Your task to perform on an android device: find which apps use the phone's location Image 0: 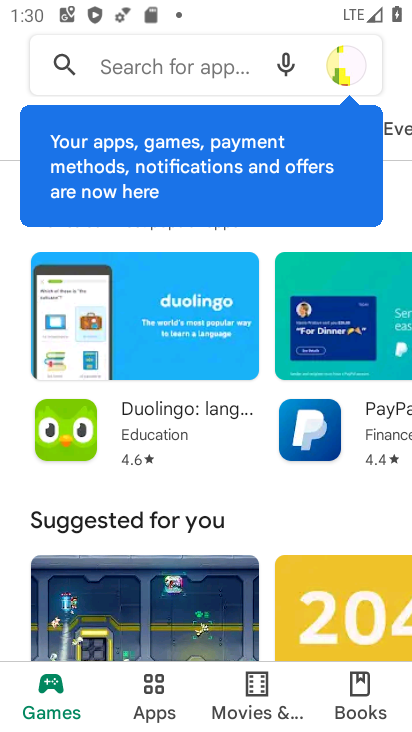
Step 0: press home button
Your task to perform on an android device: find which apps use the phone's location Image 1: 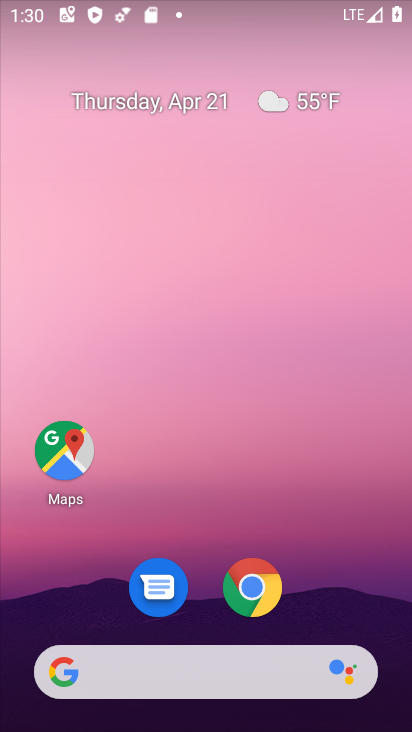
Step 1: drag from (375, 615) to (291, 107)
Your task to perform on an android device: find which apps use the phone's location Image 2: 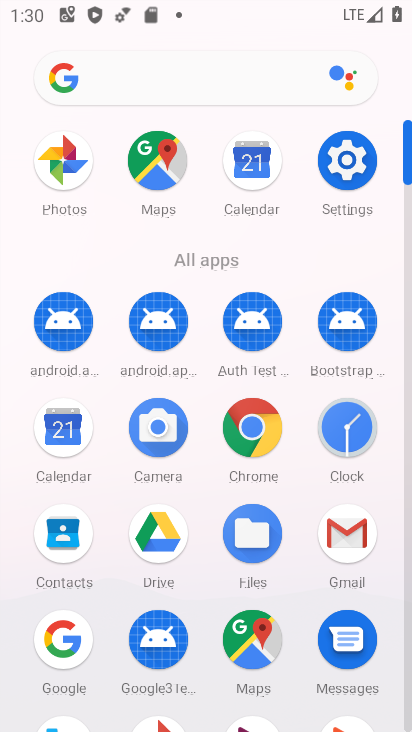
Step 2: click (407, 693)
Your task to perform on an android device: find which apps use the phone's location Image 3: 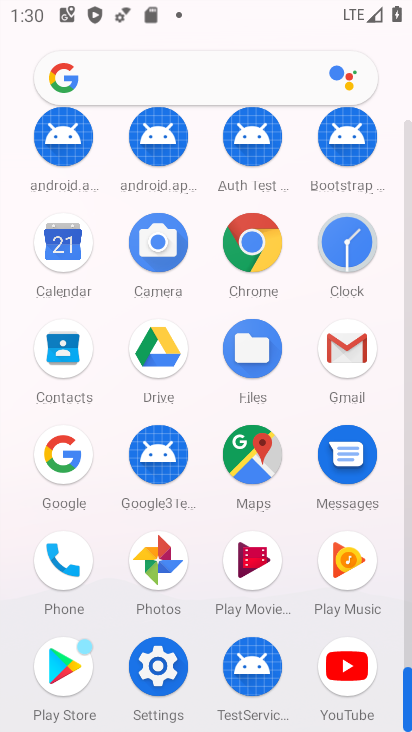
Step 3: click (157, 666)
Your task to perform on an android device: find which apps use the phone's location Image 4: 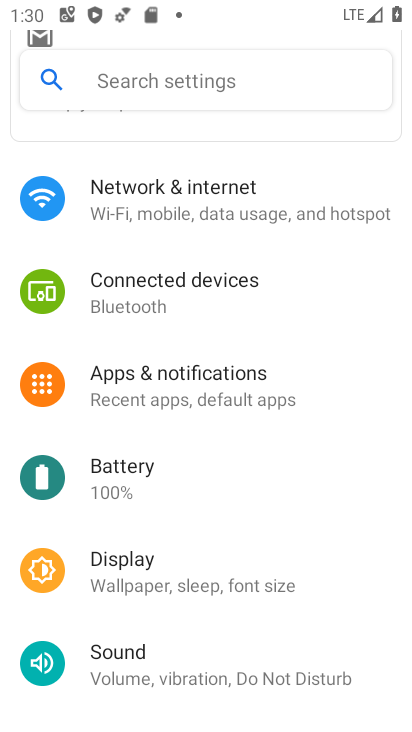
Step 4: drag from (333, 588) to (300, 349)
Your task to perform on an android device: find which apps use the phone's location Image 5: 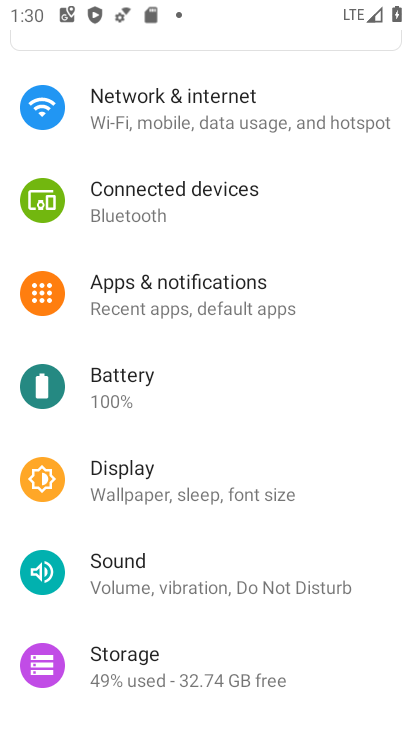
Step 5: drag from (369, 580) to (345, 326)
Your task to perform on an android device: find which apps use the phone's location Image 6: 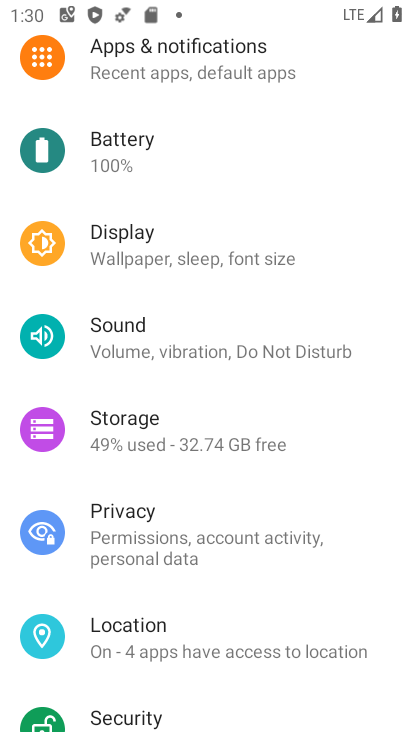
Step 6: click (136, 641)
Your task to perform on an android device: find which apps use the phone's location Image 7: 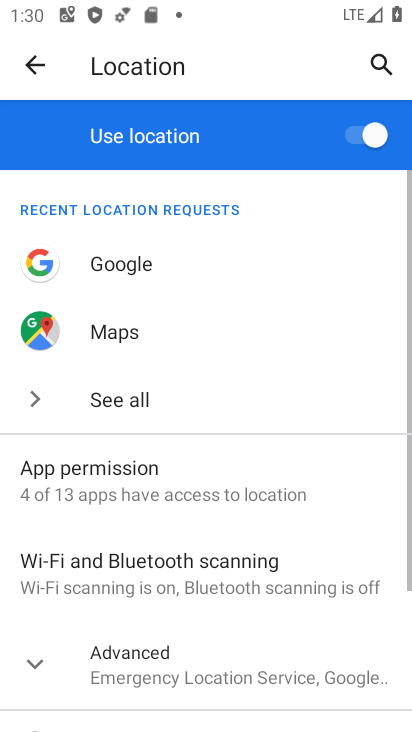
Step 7: click (75, 469)
Your task to perform on an android device: find which apps use the phone's location Image 8: 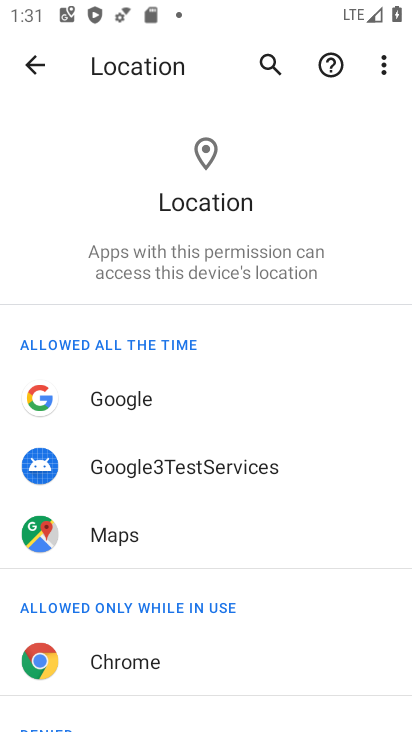
Step 8: drag from (320, 565) to (280, 174)
Your task to perform on an android device: find which apps use the phone's location Image 9: 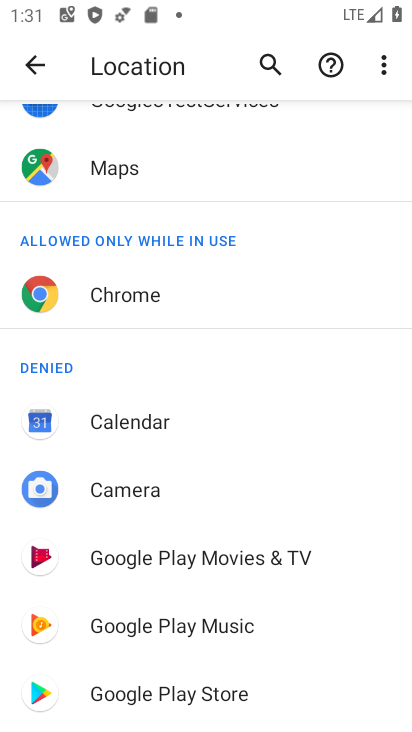
Step 9: drag from (295, 483) to (268, 174)
Your task to perform on an android device: find which apps use the phone's location Image 10: 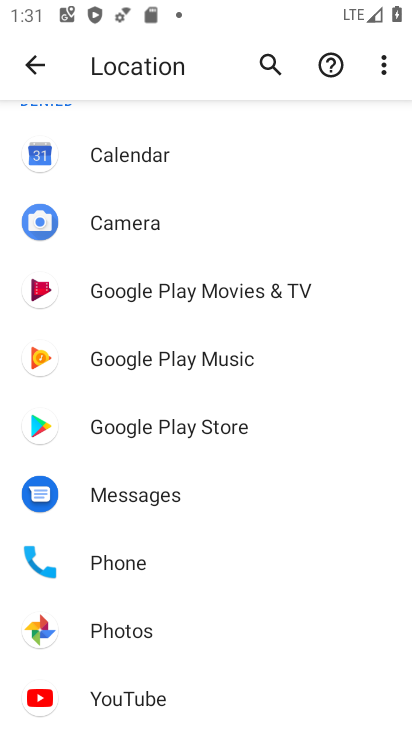
Step 10: drag from (277, 599) to (293, 324)
Your task to perform on an android device: find which apps use the phone's location Image 11: 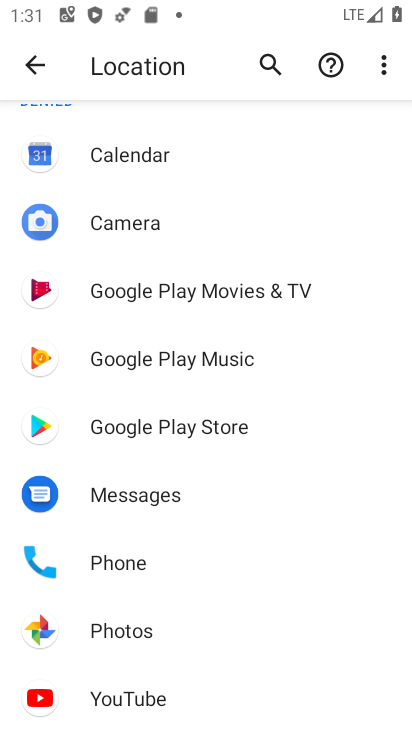
Step 11: click (103, 639)
Your task to perform on an android device: find which apps use the phone's location Image 12: 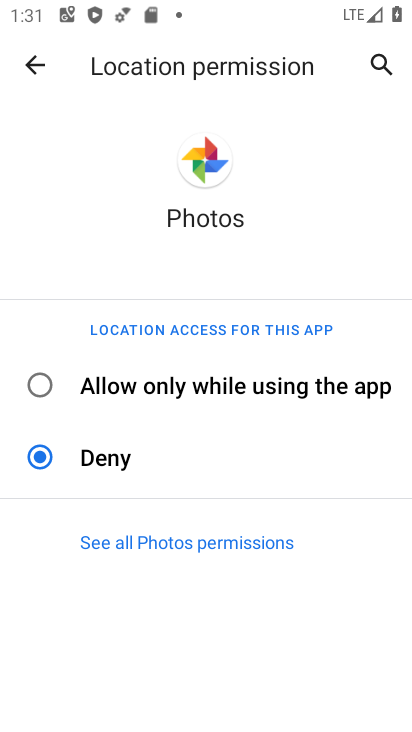
Step 12: task complete